Your task to perform on an android device: see creations saved in the google photos Image 0: 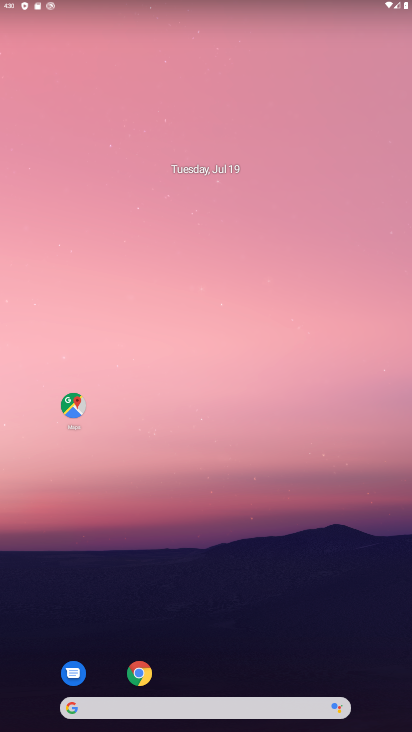
Step 0: drag from (212, 676) to (235, 159)
Your task to perform on an android device: see creations saved in the google photos Image 1: 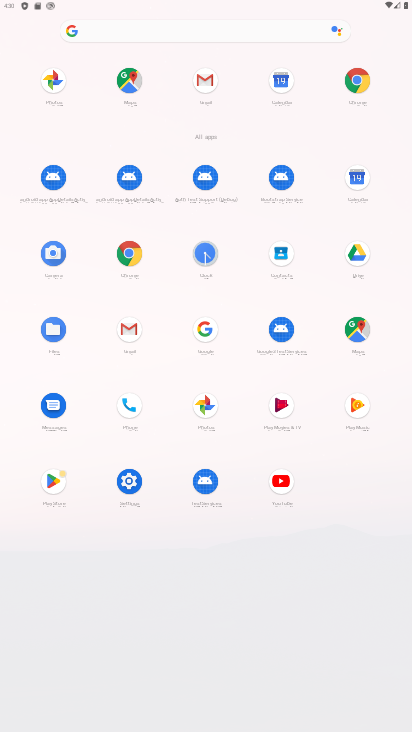
Step 1: click (210, 406)
Your task to perform on an android device: see creations saved in the google photos Image 2: 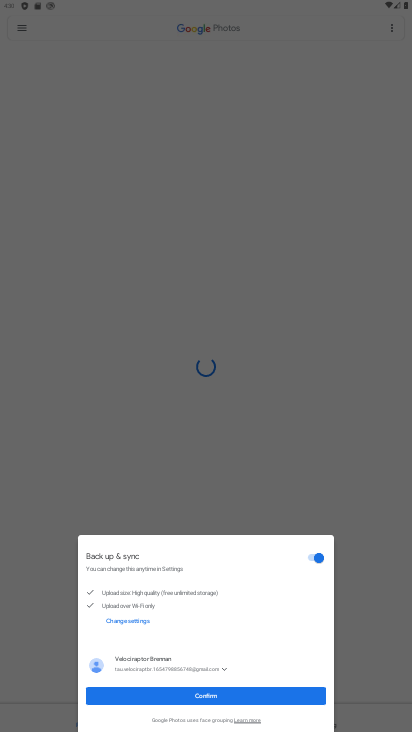
Step 2: click (268, 696)
Your task to perform on an android device: see creations saved in the google photos Image 3: 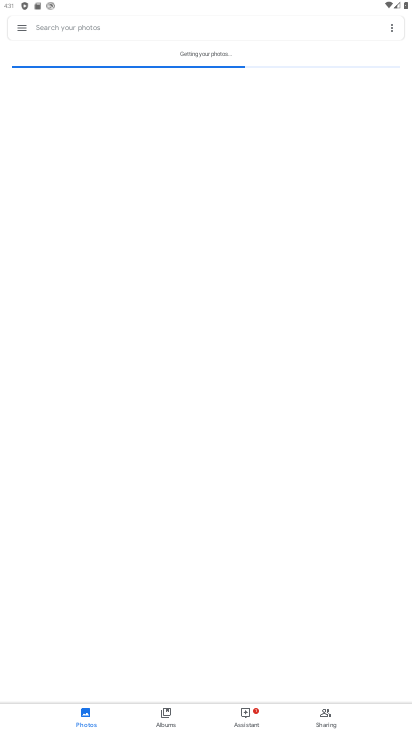
Step 3: click (188, 26)
Your task to perform on an android device: see creations saved in the google photos Image 4: 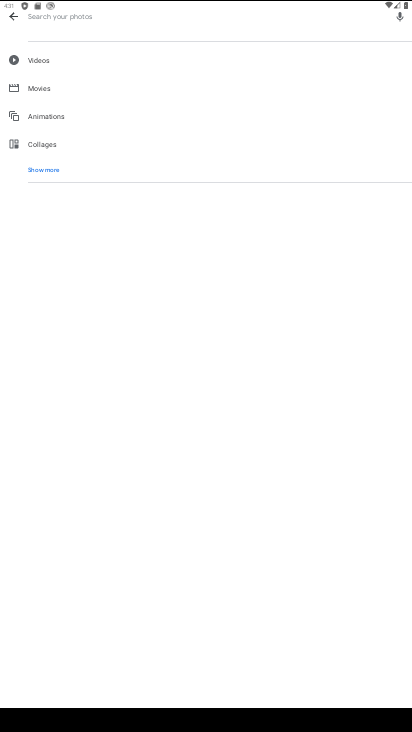
Step 4: type "creations"
Your task to perform on an android device: see creations saved in the google photos Image 5: 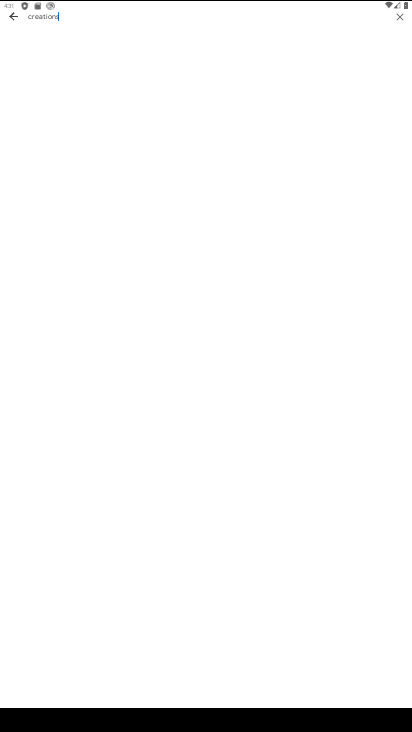
Step 5: task complete